Your task to perform on an android device: change the clock display to analog Image 0: 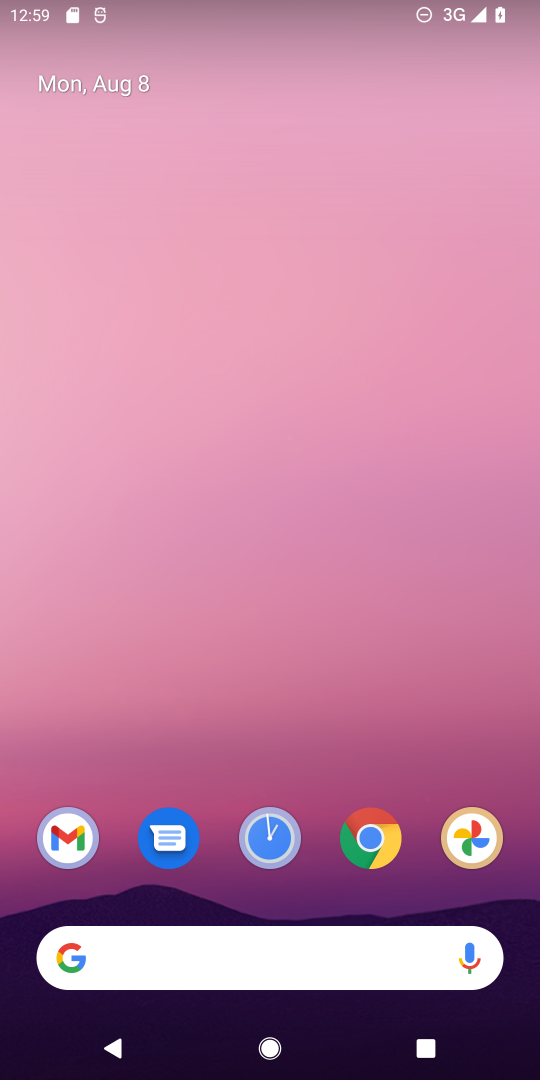
Step 0: press home button
Your task to perform on an android device: change the clock display to analog Image 1: 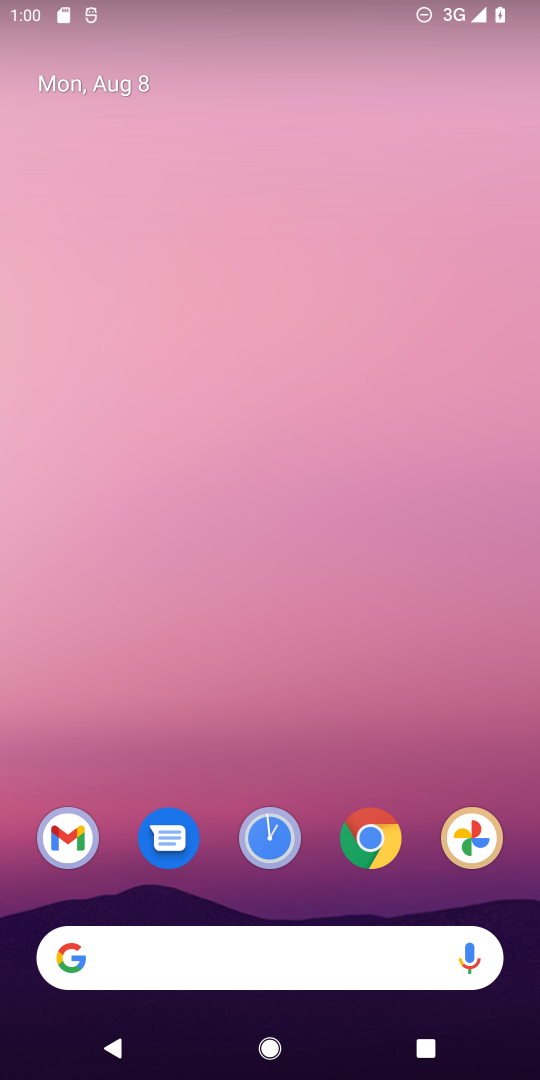
Step 1: drag from (346, 792) to (329, 65)
Your task to perform on an android device: change the clock display to analog Image 2: 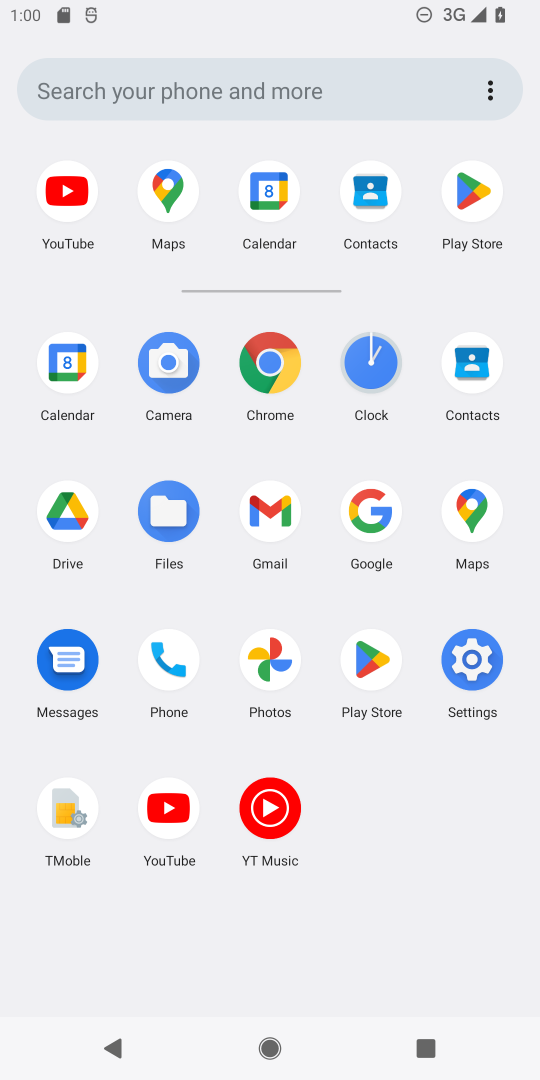
Step 2: click (370, 377)
Your task to perform on an android device: change the clock display to analog Image 3: 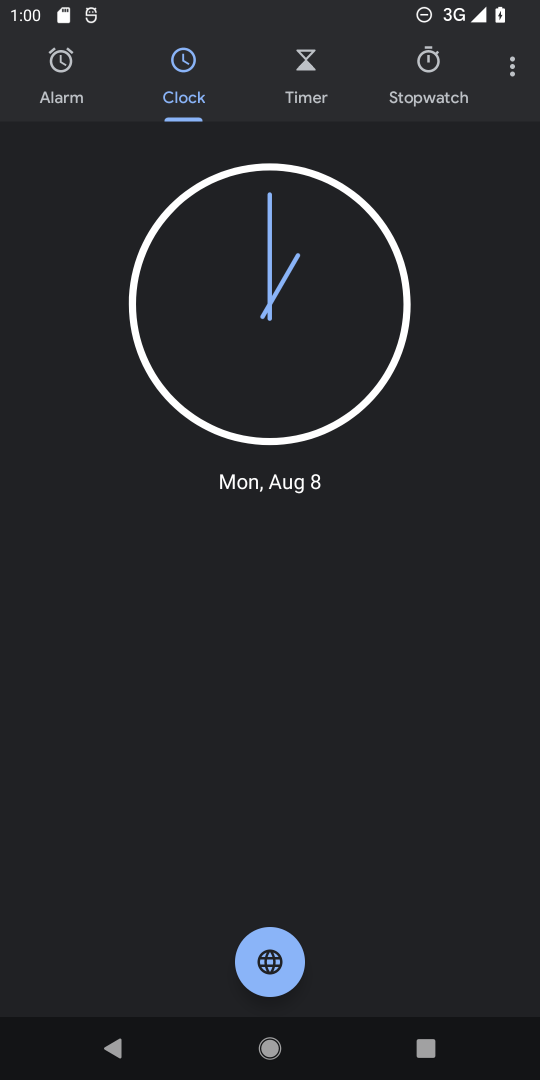
Step 3: click (503, 68)
Your task to perform on an android device: change the clock display to analog Image 4: 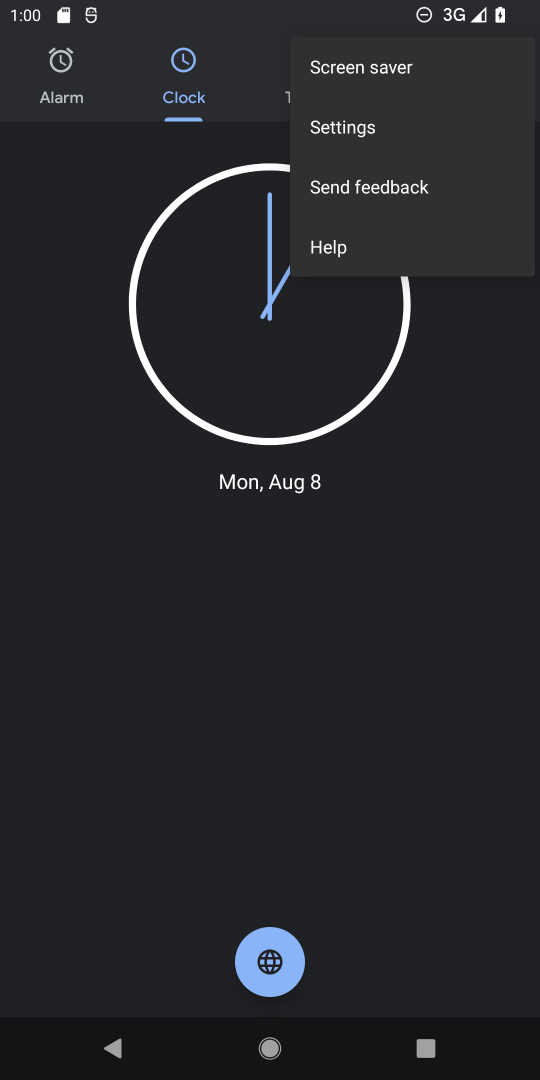
Step 4: click (340, 133)
Your task to perform on an android device: change the clock display to analog Image 5: 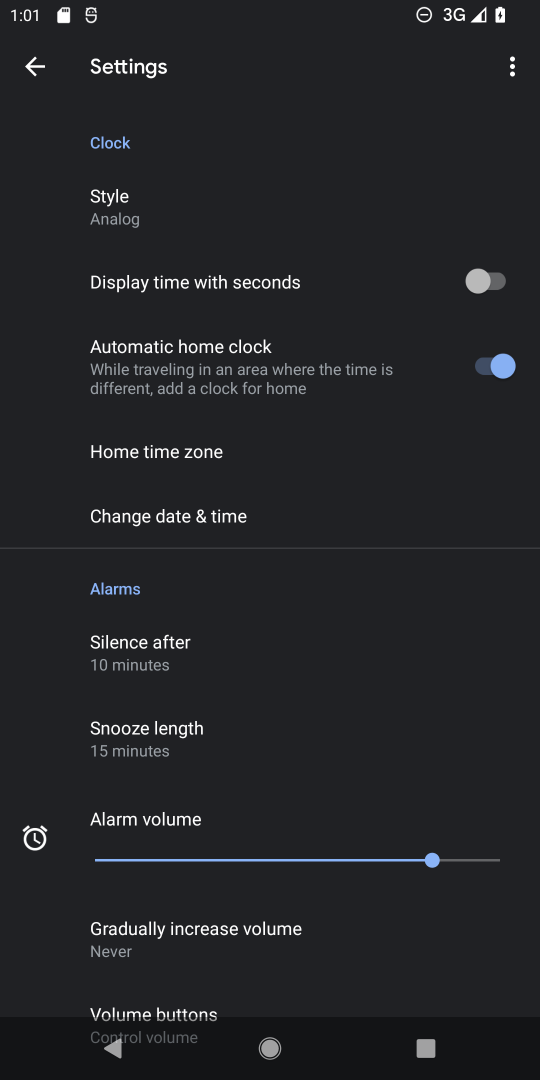
Step 5: click (108, 215)
Your task to perform on an android device: change the clock display to analog Image 6: 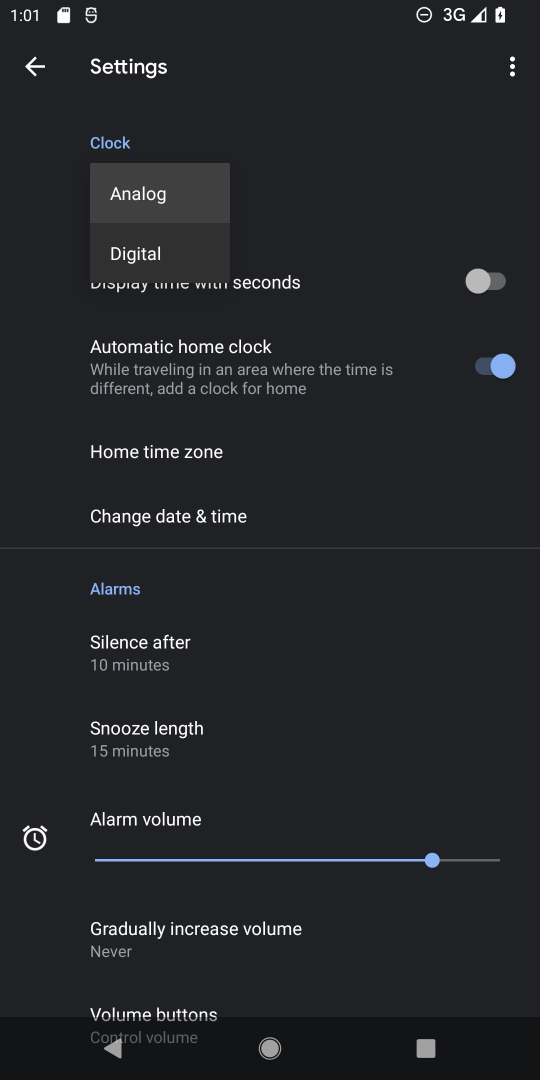
Step 6: task complete